Your task to perform on an android device: turn on airplane mode Image 0: 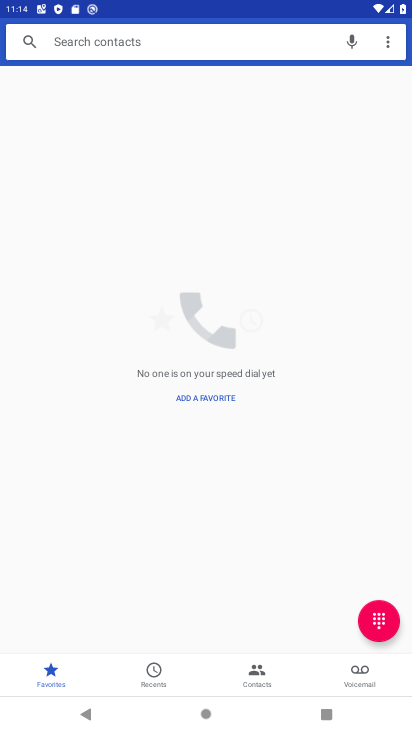
Step 0: press home button
Your task to perform on an android device: turn on airplane mode Image 1: 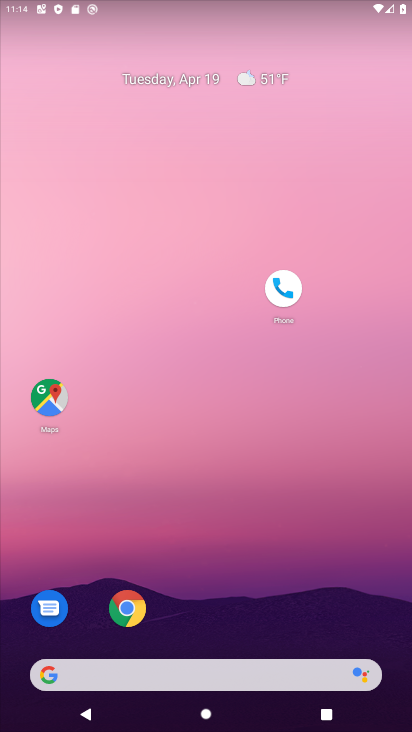
Step 1: drag from (246, 556) to (258, 41)
Your task to perform on an android device: turn on airplane mode Image 2: 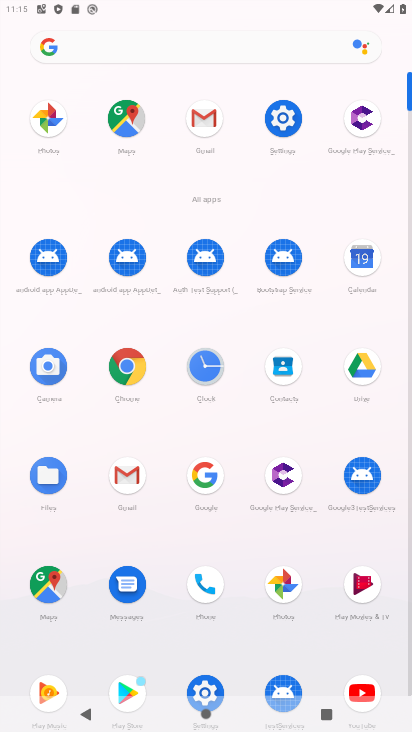
Step 2: click (282, 120)
Your task to perform on an android device: turn on airplane mode Image 3: 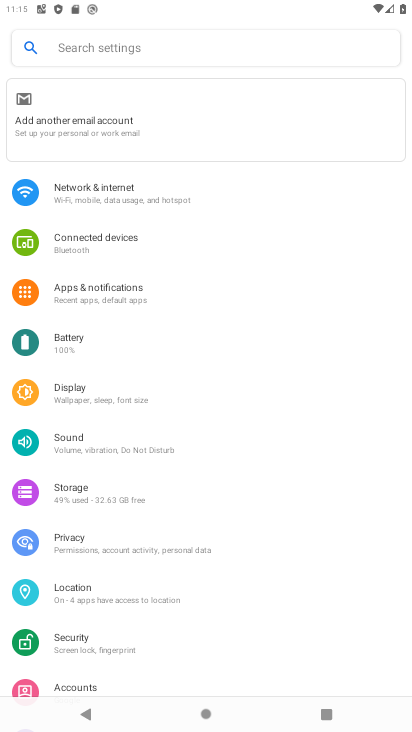
Step 3: click (103, 196)
Your task to perform on an android device: turn on airplane mode Image 4: 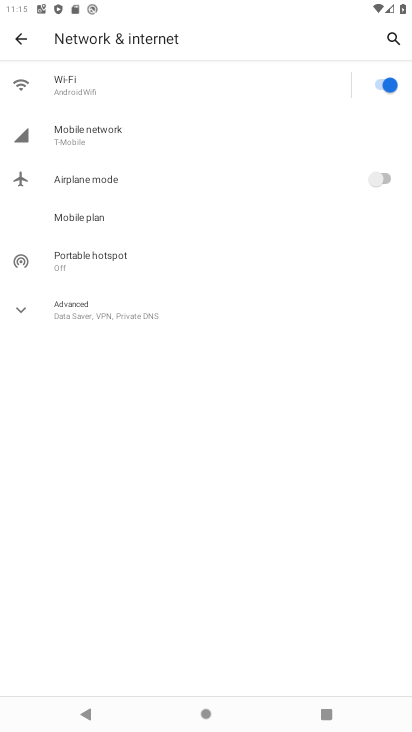
Step 4: click (373, 175)
Your task to perform on an android device: turn on airplane mode Image 5: 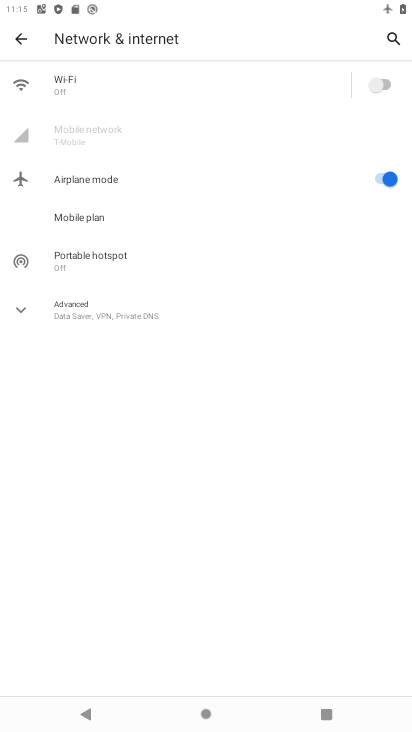
Step 5: task complete